Your task to perform on an android device: Check the news Image 0: 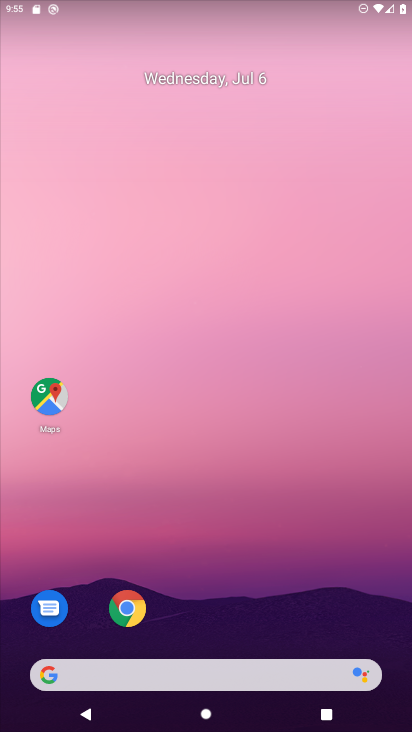
Step 0: drag from (173, 672) to (215, 357)
Your task to perform on an android device: Check the news Image 1: 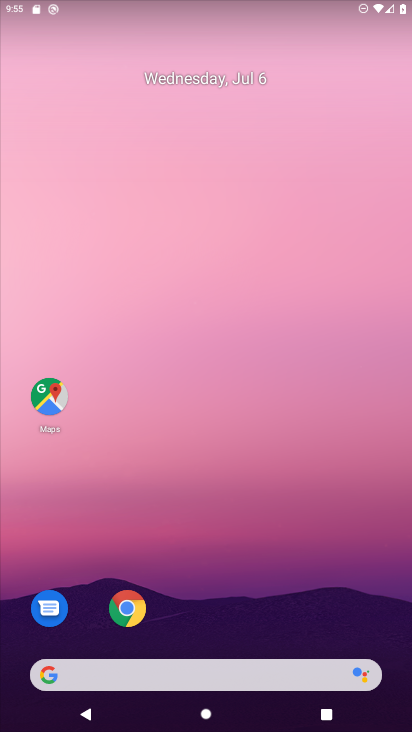
Step 1: drag from (202, 623) to (262, 195)
Your task to perform on an android device: Check the news Image 2: 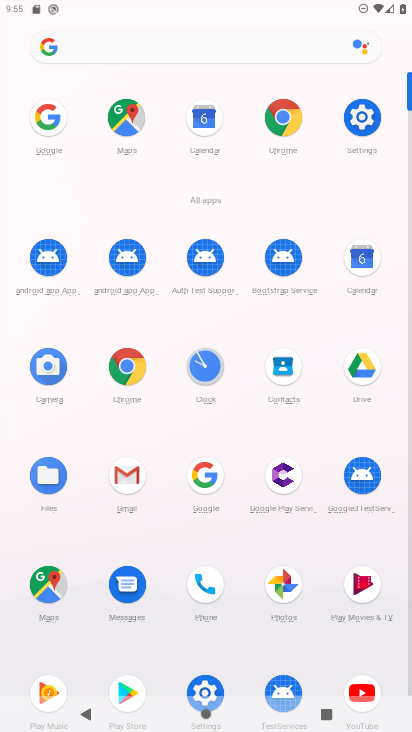
Step 2: click (206, 489)
Your task to perform on an android device: Check the news Image 3: 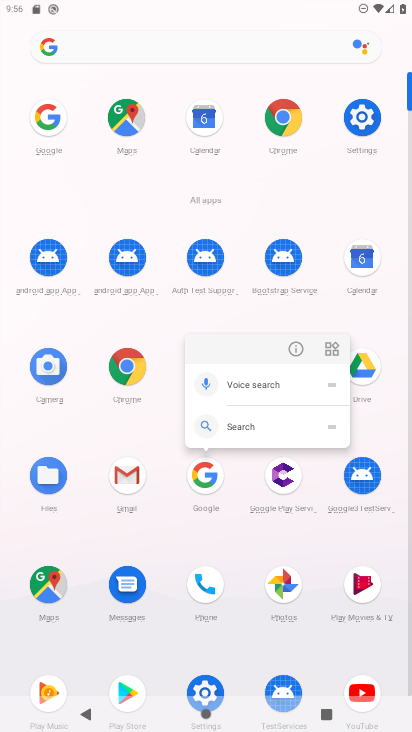
Step 3: click (207, 472)
Your task to perform on an android device: Check the news Image 4: 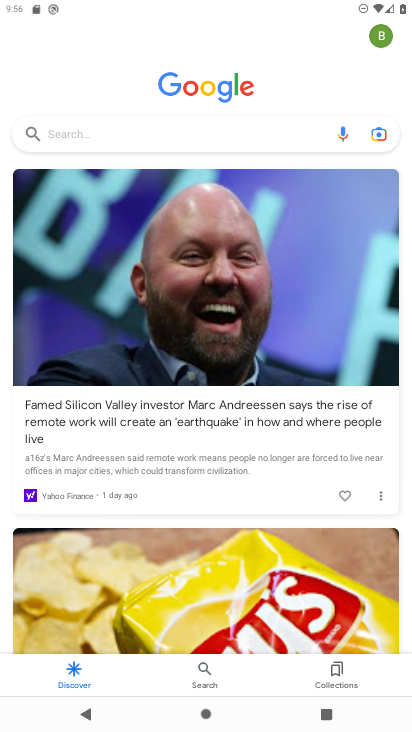
Step 4: click (152, 131)
Your task to perform on an android device: Check the news Image 5: 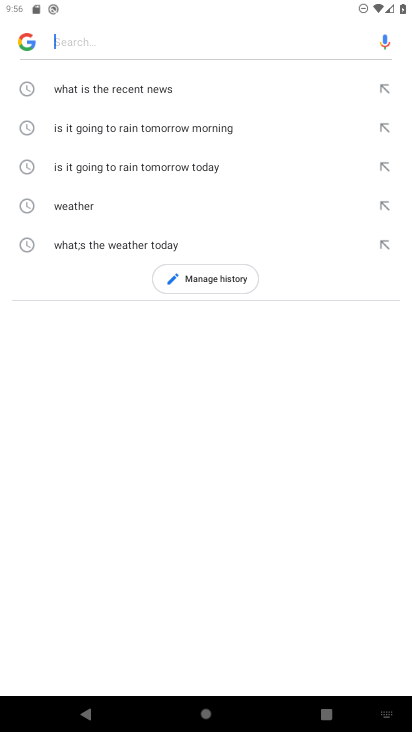
Step 5: type "check the news"
Your task to perform on an android device: Check the news Image 6: 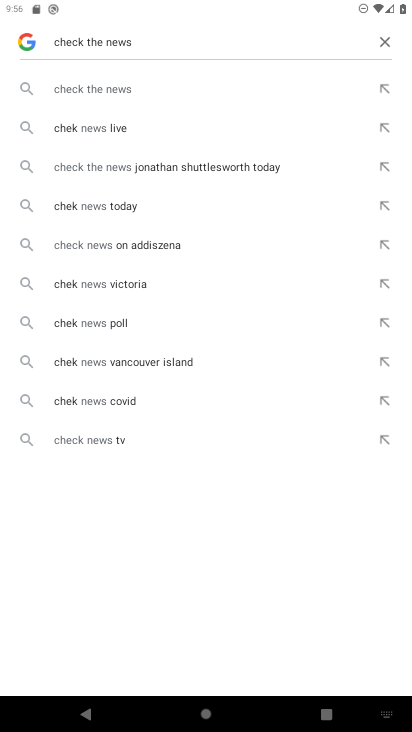
Step 6: click (108, 82)
Your task to perform on an android device: Check the news Image 7: 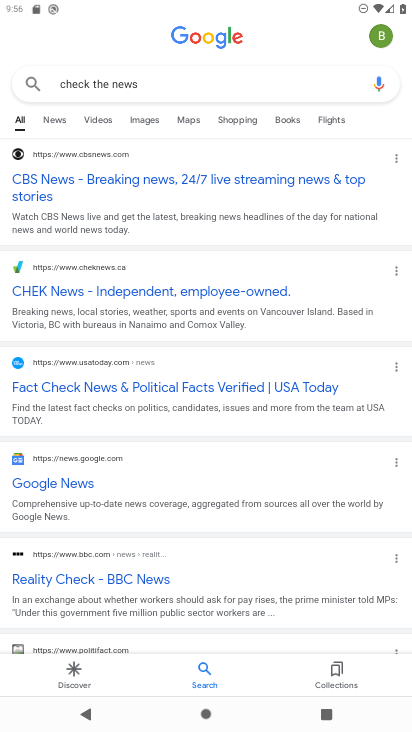
Step 7: click (173, 192)
Your task to perform on an android device: Check the news Image 8: 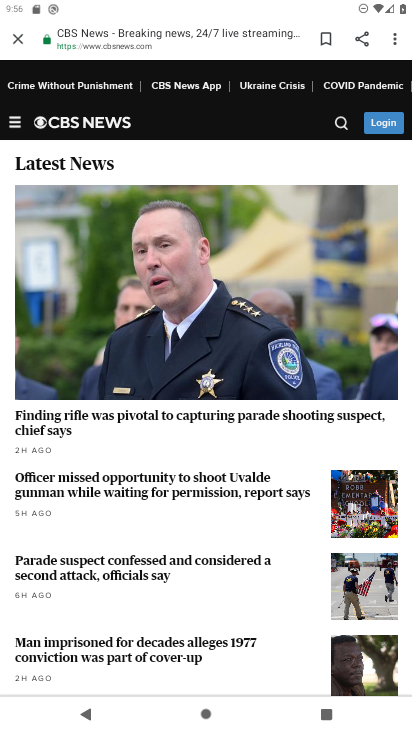
Step 8: task complete